Your task to perform on an android device: uninstall "Gboard" Image 0: 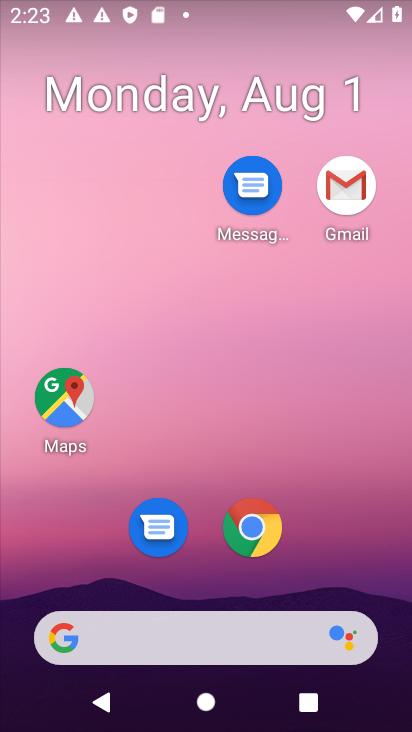
Step 0: drag from (183, 668) to (245, 104)
Your task to perform on an android device: uninstall "Gboard" Image 1: 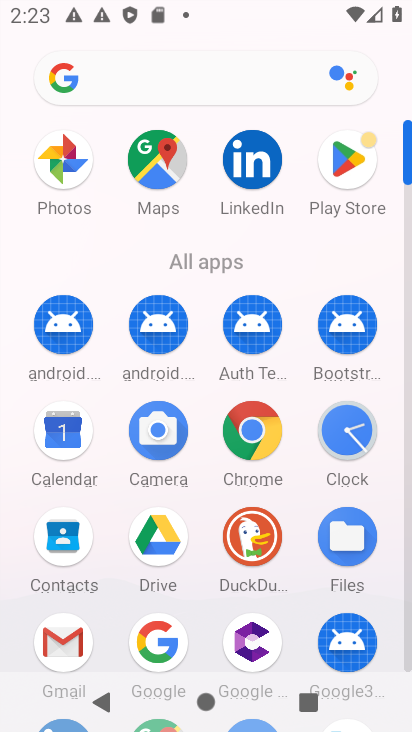
Step 1: click (331, 171)
Your task to perform on an android device: uninstall "Gboard" Image 2: 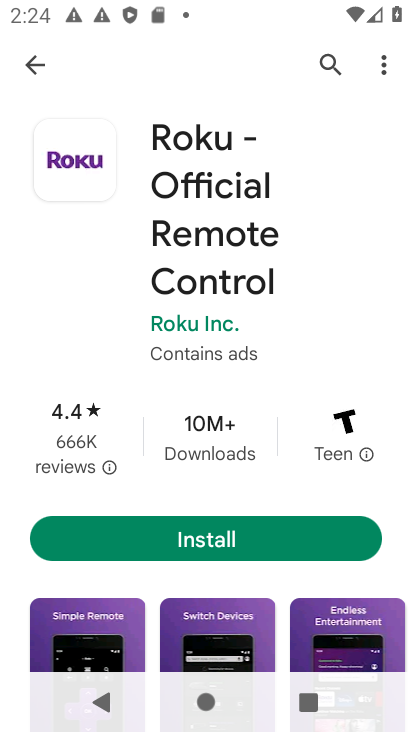
Step 2: click (326, 54)
Your task to perform on an android device: uninstall "Gboard" Image 3: 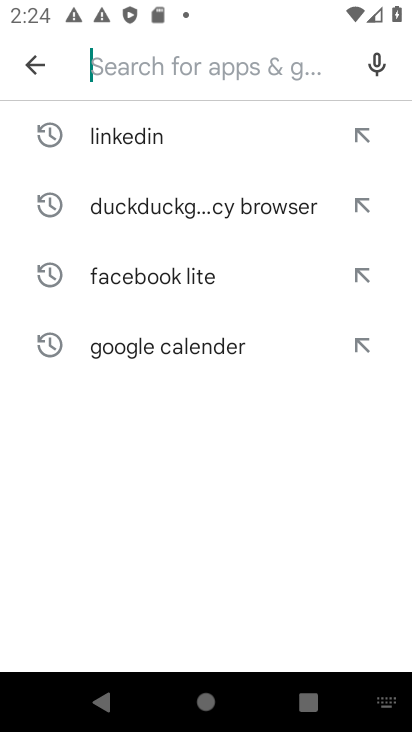
Step 3: type "gboard"
Your task to perform on an android device: uninstall "Gboard" Image 4: 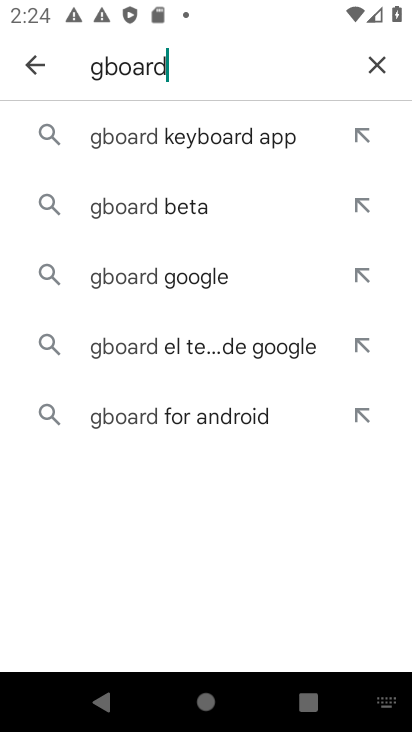
Step 4: click (204, 144)
Your task to perform on an android device: uninstall "Gboard" Image 5: 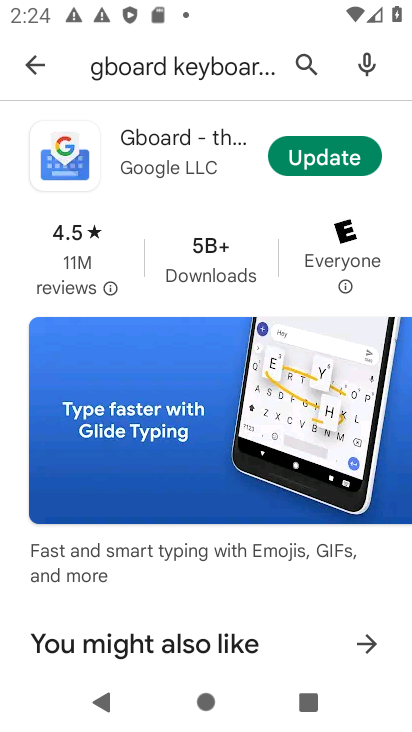
Step 5: task complete